Your task to perform on an android device: Open the downloads Image 0: 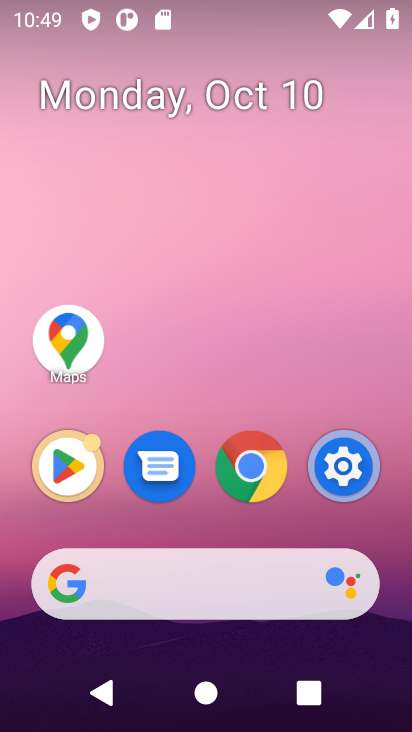
Step 0: drag from (215, 546) to (213, 3)
Your task to perform on an android device: Open the downloads Image 1: 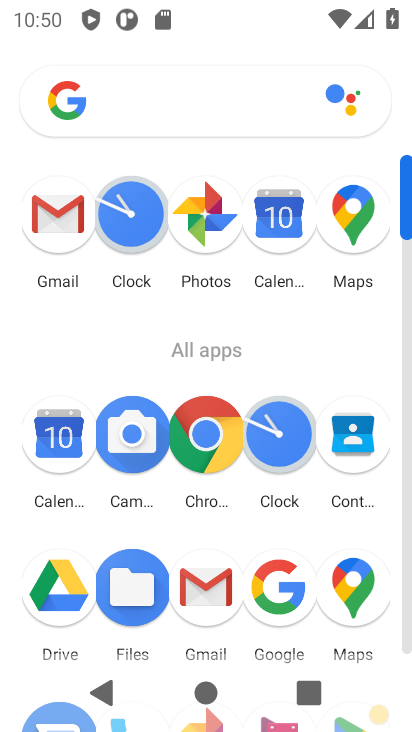
Step 1: drag from (246, 642) to (225, 154)
Your task to perform on an android device: Open the downloads Image 2: 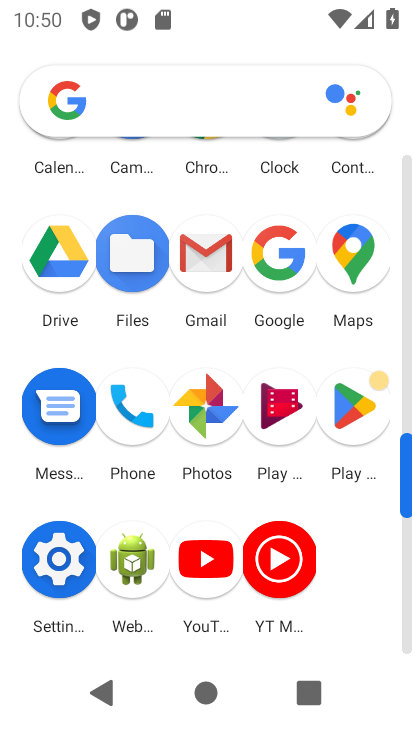
Step 2: click (134, 259)
Your task to perform on an android device: Open the downloads Image 3: 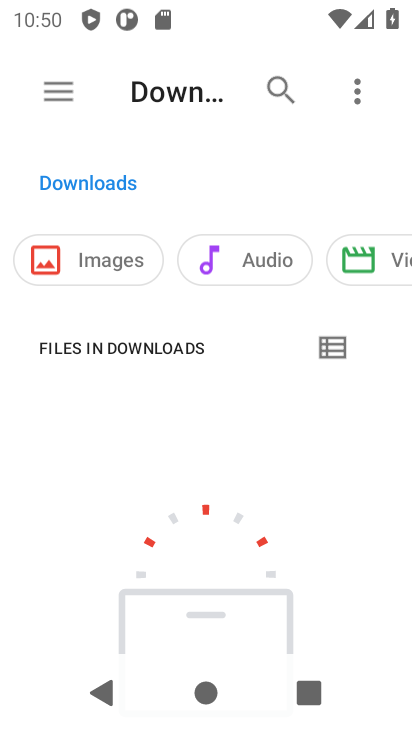
Step 3: drag from (397, 265) to (8, 295)
Your task to perform on an android device: Open the downloads Image 4: 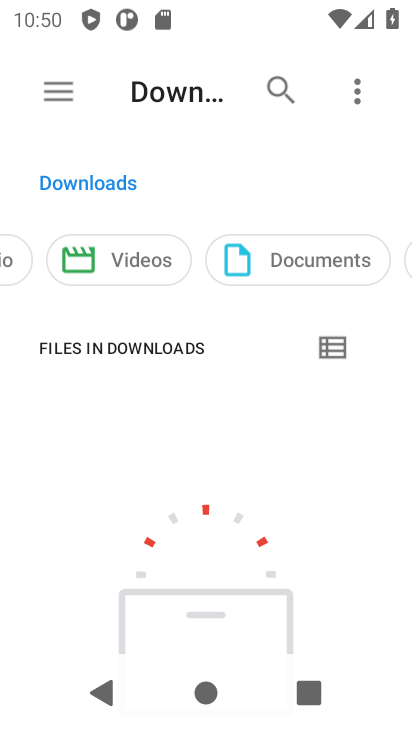
Step 4: drag from (394, 249) to (4, 263)
Your task to perform on an android device: Open the downloads Image 5: 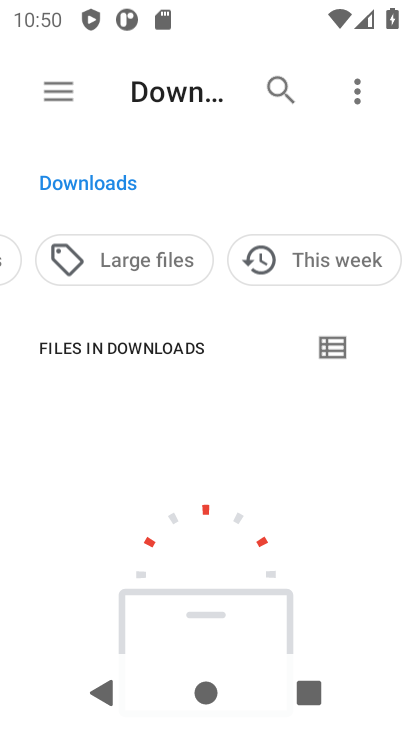
Step 5: drag from (356, 280) to (2, 278)
Your task to perform on an android device: Open the downloads Image 6: 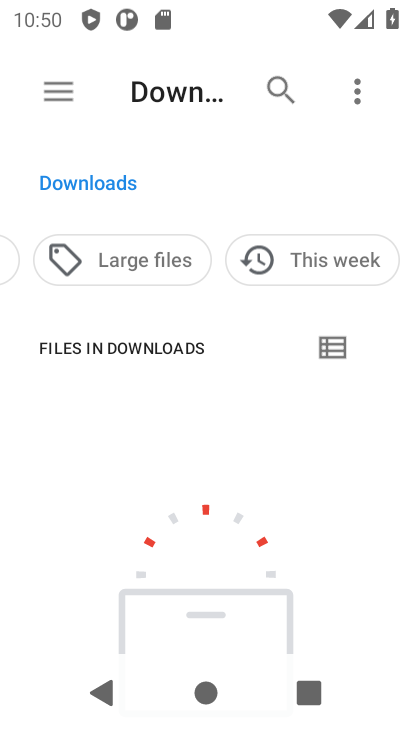
Step 6: drag from (113, 250) to (403, 567)
Your task to perform on an android device: Open the downloads Image 7: 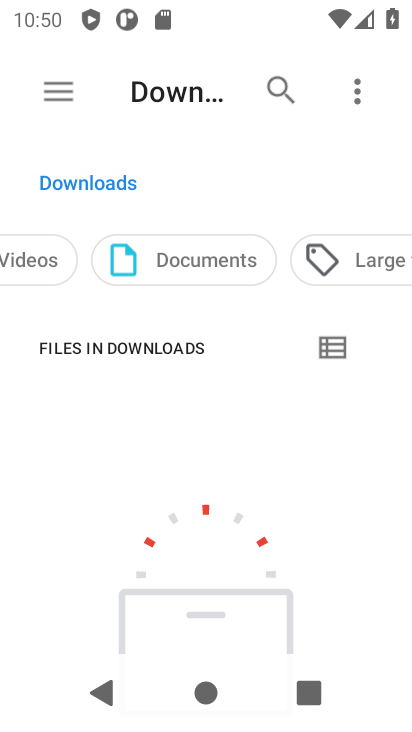
Step 7: click (85, 185)
Your task to perform on an android device: Open the downloads Image 8: 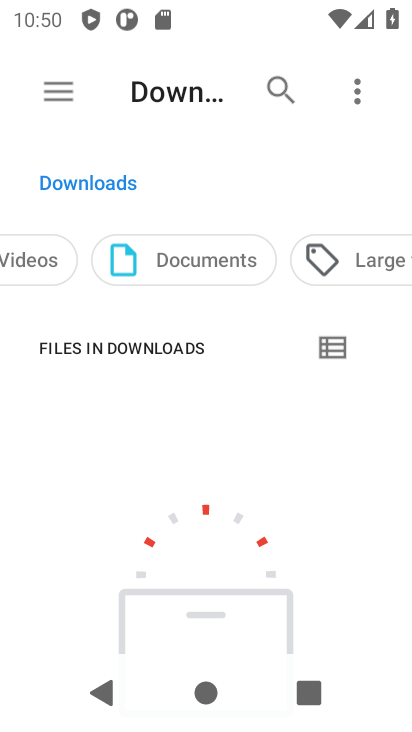
Step 8: click (148, 346)
Your task to perform on an android device: Open the downloads Image 9: 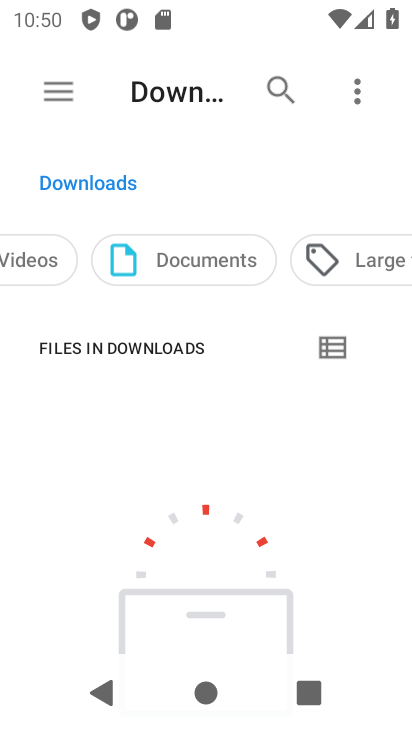
Step 9: drag from (104, 197) to (310, 62)
Your task to perform on an android device: Open the downloads Image 10: 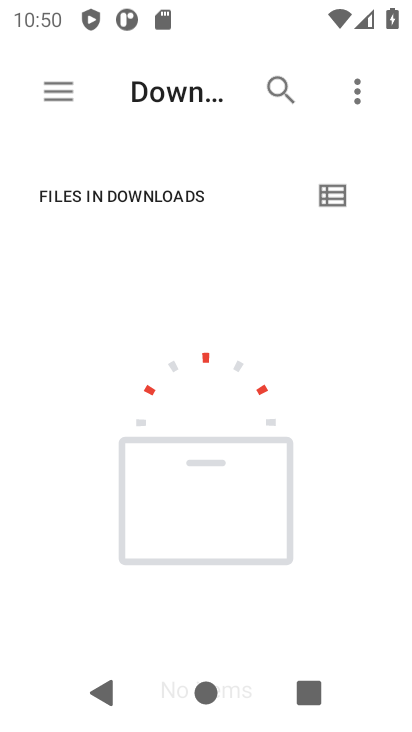
Step 10: click (51, 95)
Your task to perform on an android device: Open the downloads Image 11: 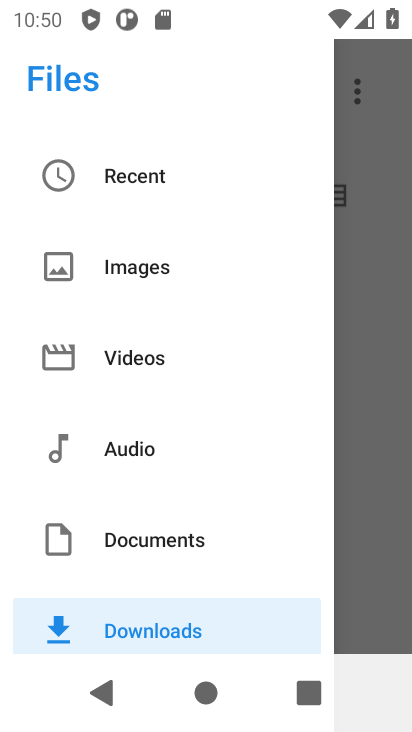
Step 11: drag from (244, 505) to (226, 228)
Your task to perform on an android device: Open the downloads Image 12: 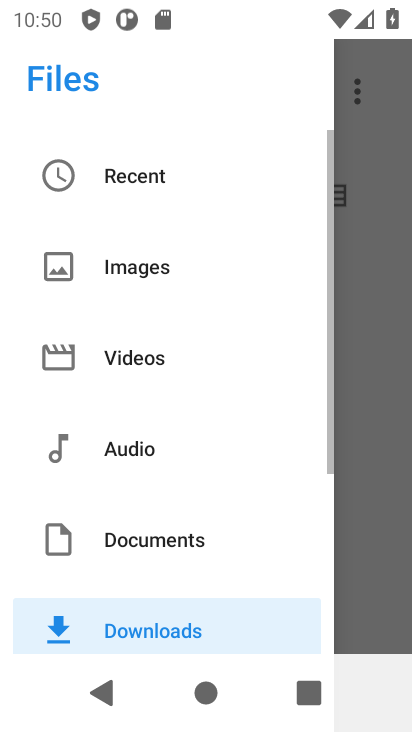
Step 12: click (131, 625)
Your task to perform on an android device: Open the downloads Image 13: 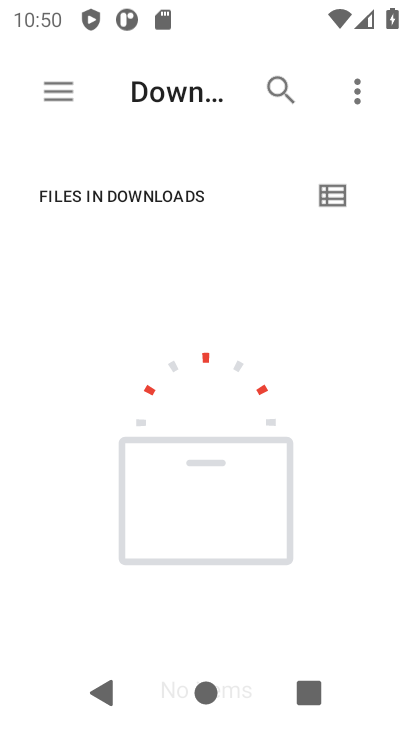
Step 13: task complete